Your task to perform on an android device: Go to Google maps Image 0: 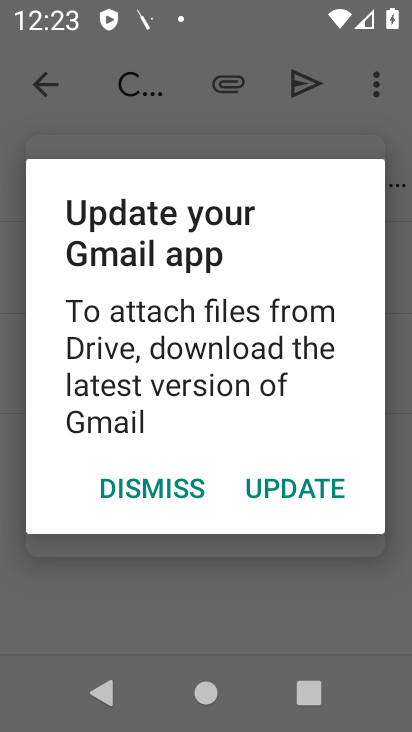
Step 0: press home button
Your task to perform on an android device: Go to Google maps Image 1: 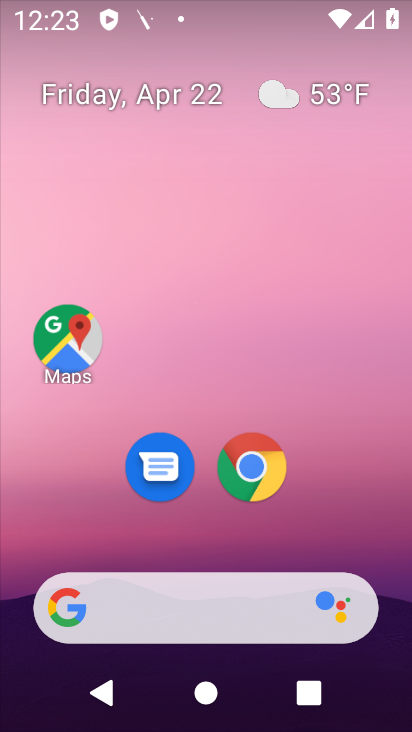
Step 1: click (68, 341)
Your task to perform on an android device: Go to Google maps Image 2: 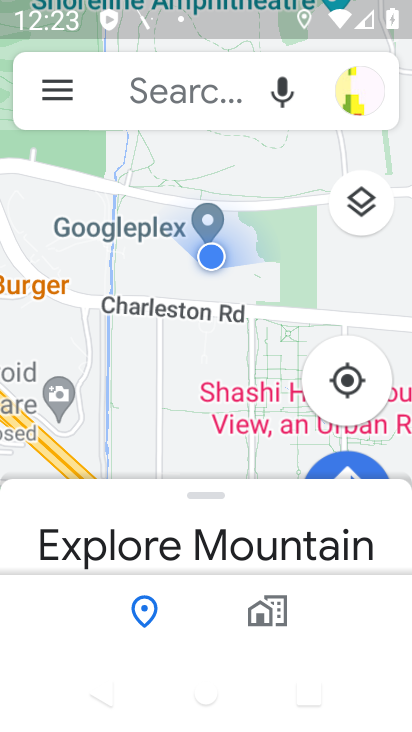
Step 2: task complete